Your task to perform on an android device: change keyboard looks Image 0: 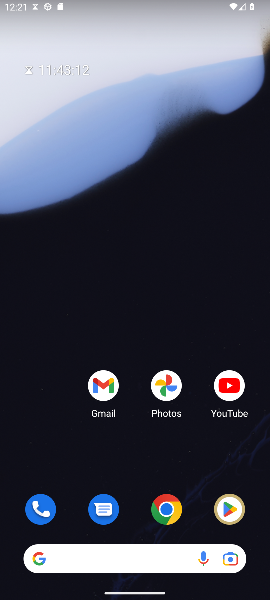
Step 0: drag from (146, 517) to (211, 87)
Your task to perform on an android device: change keyboard looks Image 1: 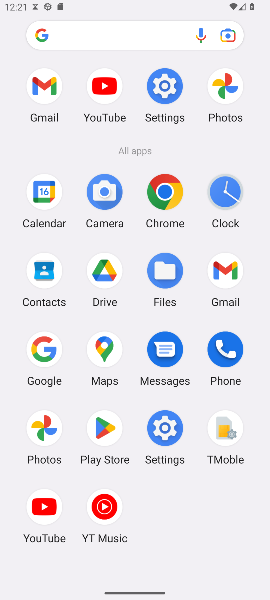
Step 1: click (159, 92)
Your task to perform on an android device: change keyboard looks Image 2: 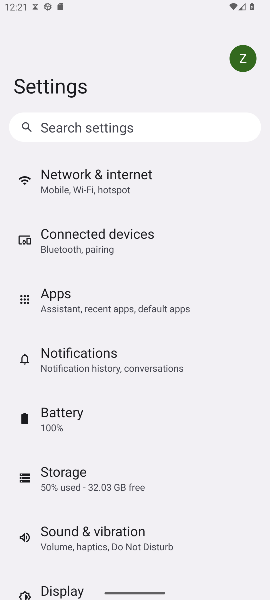
Step 2: drag from (207, 524) to (235, 71)
Your task to perform on an android device: change keyboard looks Image 3: 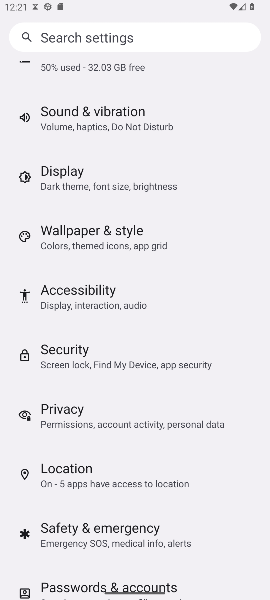
Step 3: drag from (200, 536) to (229, 192)
Your task to perform on an android device: change keyboard looks Image 4: 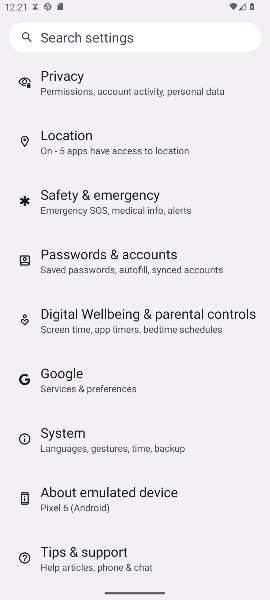
Step 4: click (47, 435)
Your task to perform on an android device: change keyboard looks Image 5: 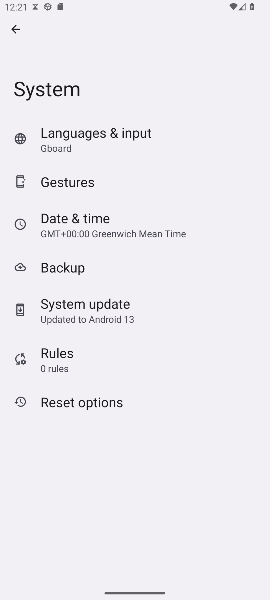
Step 5: click (66, 142)
Your task to perform on an android device: change keyboard looks Image 6: 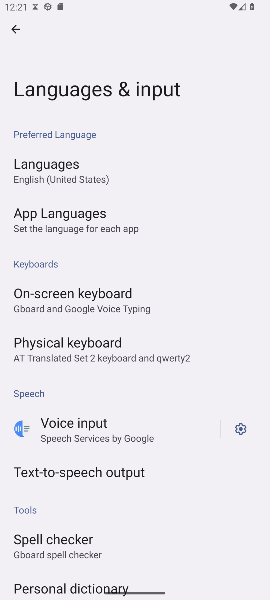
Step 6: drag from (211, 517) to (199, 383)
Your task to perform on an android device: change keyboard looks Image 7: 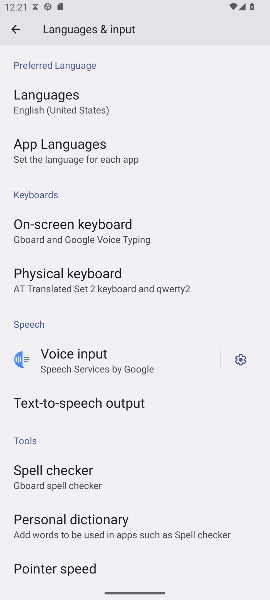
Step 7: click (44, 224)
Your task to perform on an android device: change keyboard looks Image 8: 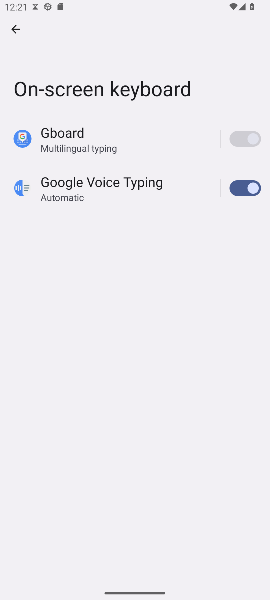
Step 8: click (66, 145)
Your task to perform on an android device: change keyboard looks Image 9: 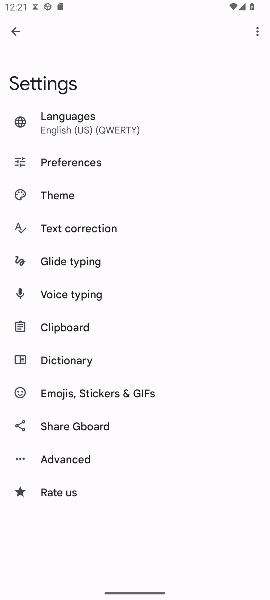
Step 9: click (53, 196)
Your task to perform on an android device: change keyboard looks Image 10: 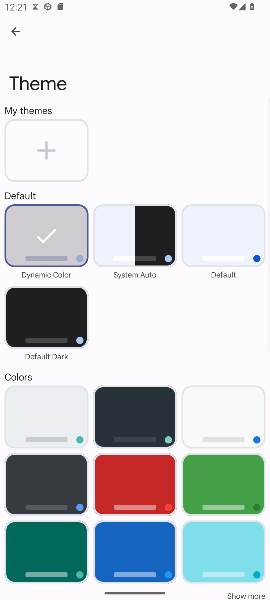
Step 10: click (129, 551)
Your task to perform on an android device: change keyboard looks Image 11: 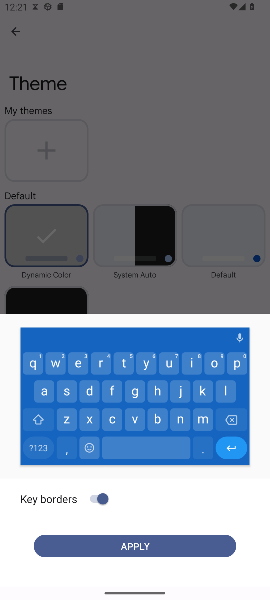
Step 11: click (83, 545)
Your task to perform on an android device: change keyboard looks Image 12: 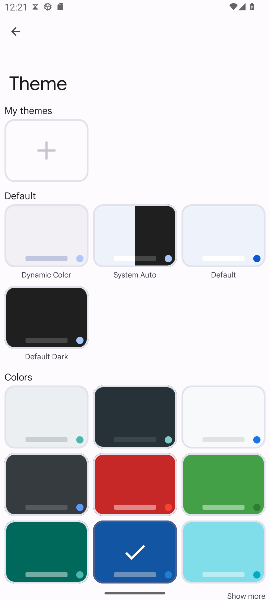
Step 12: task complete